Your task to perform on an android device: allow notifications from all sites in the chrome app Image 0: 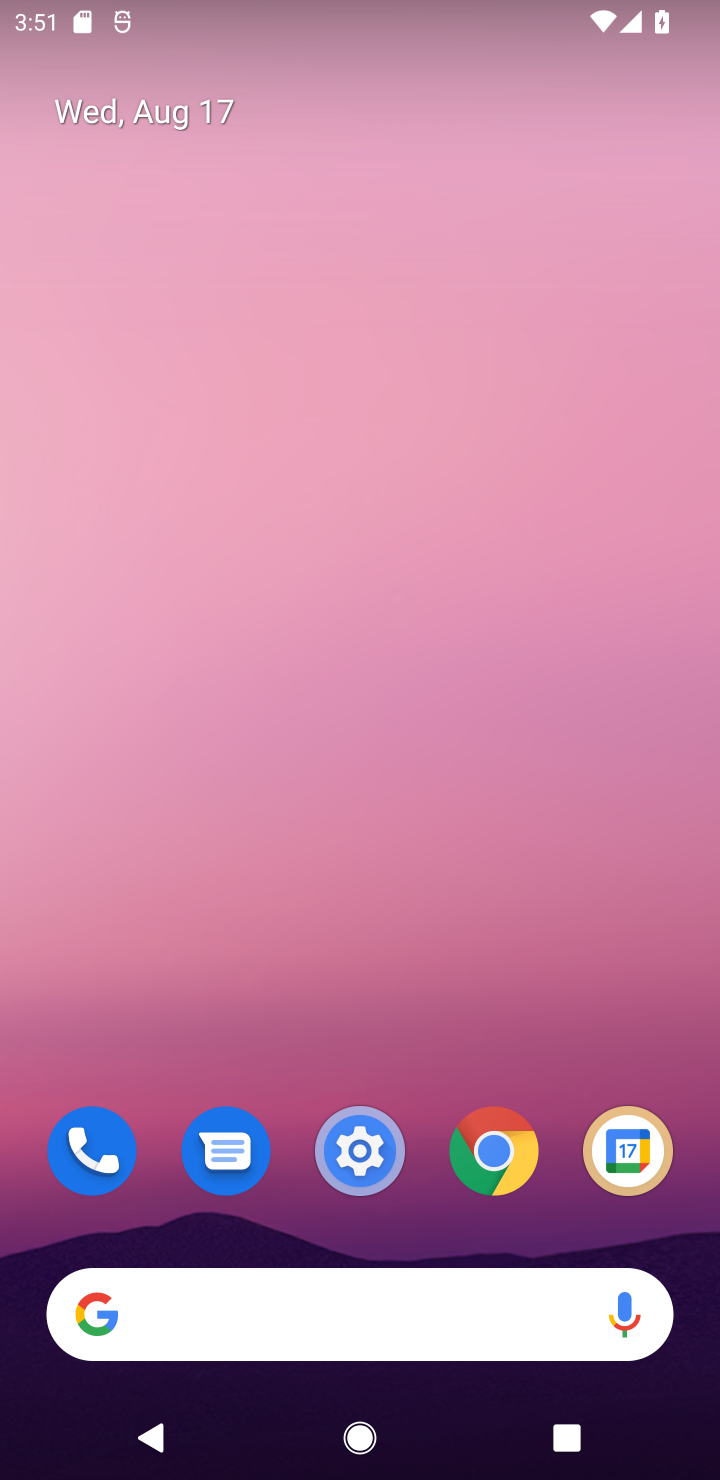
Step 0: click (366, 1188)
Your task to perform on an android device: allow notifications from all sites in the chrome app Image 1: 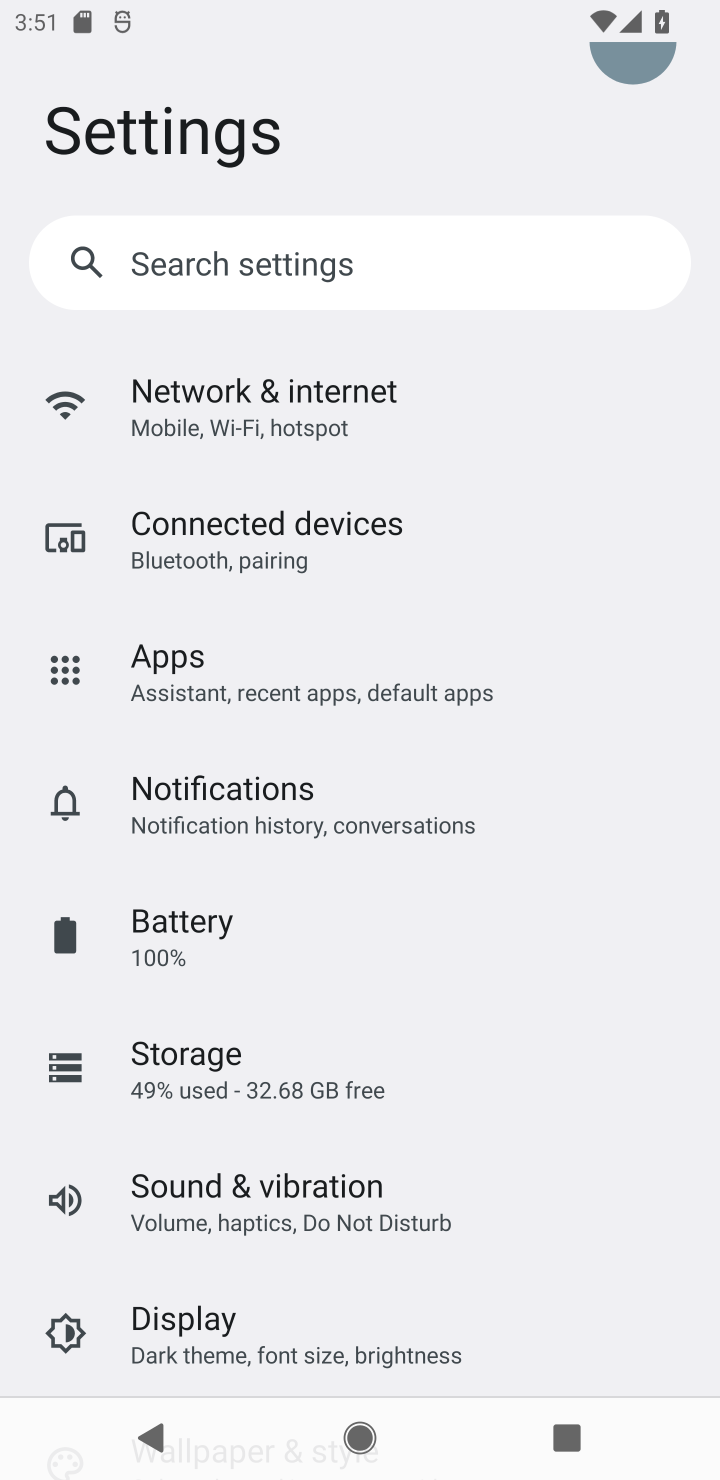
Step 1: press home button
Your task to perform on an android device: allow notifications from all sites in the chrome app Image 2: 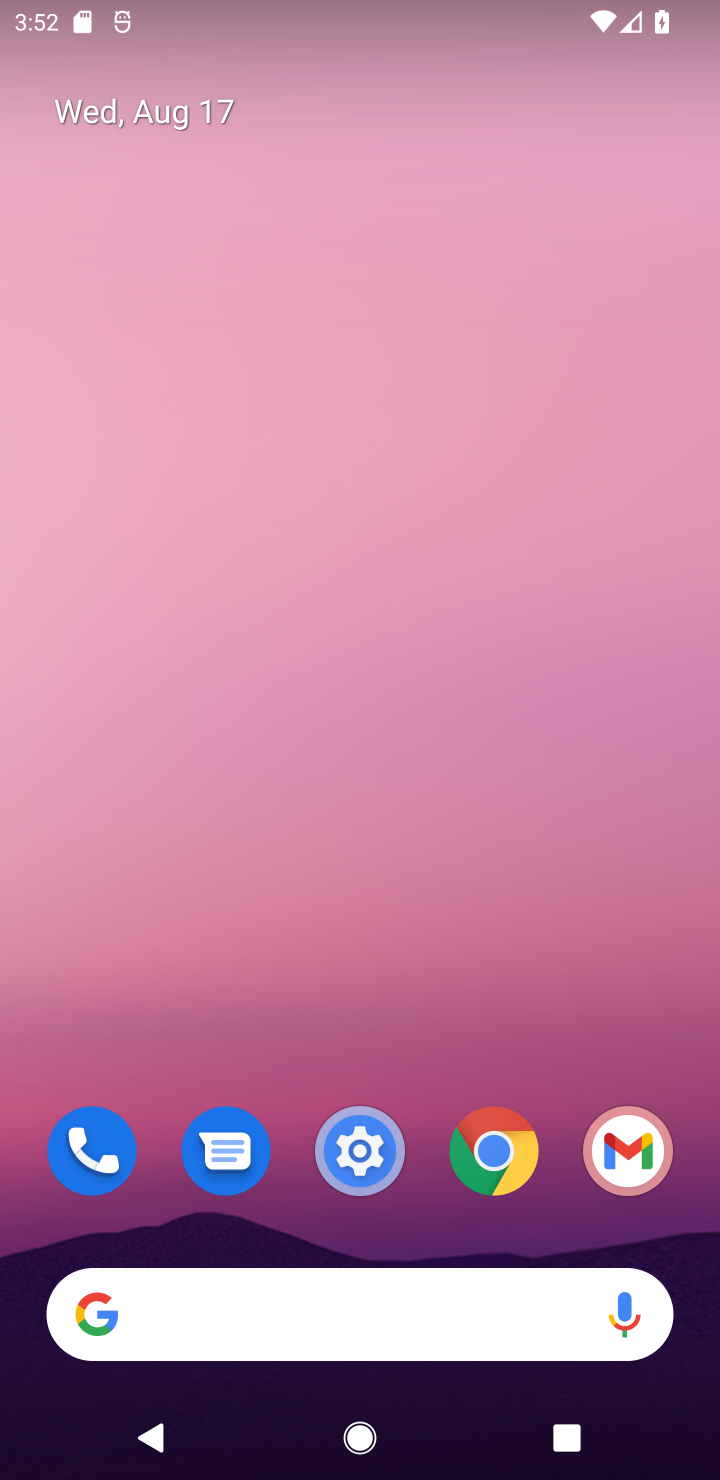
Step 2: click (513, 1137)
Your task to perform on an android device: allow notifications from all sites in the chrome app Image 3: 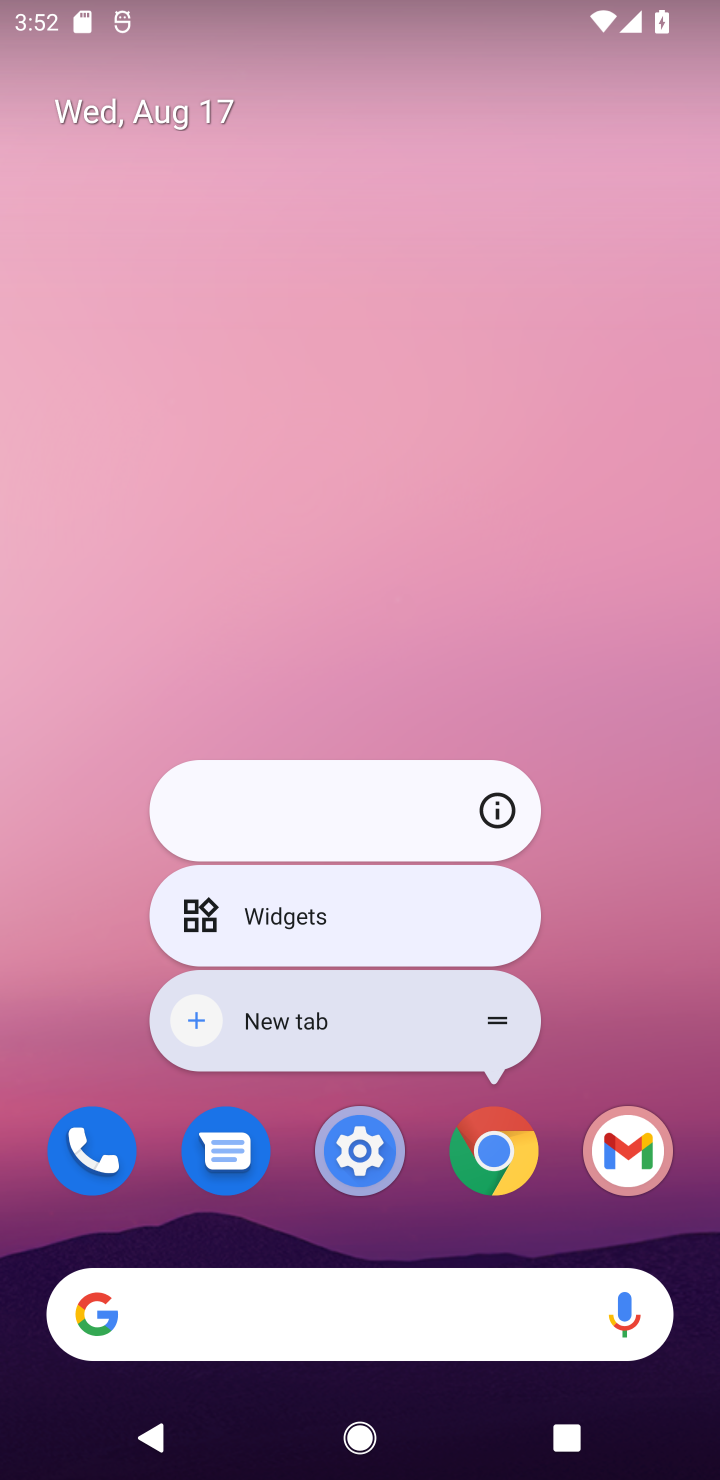
Step 3: task complete